Your task to perform on an android device: open app "Spotify" Image 0: 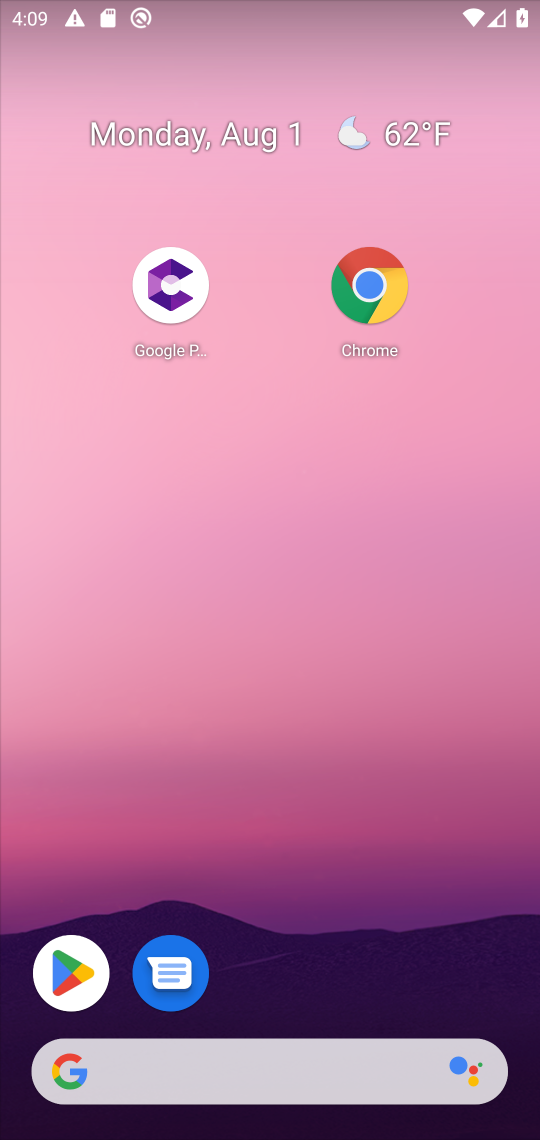
Step 0: drag from (266, 602) to (516, 705)
Your task to perform on an android device: open app "Spotify" Image 1: 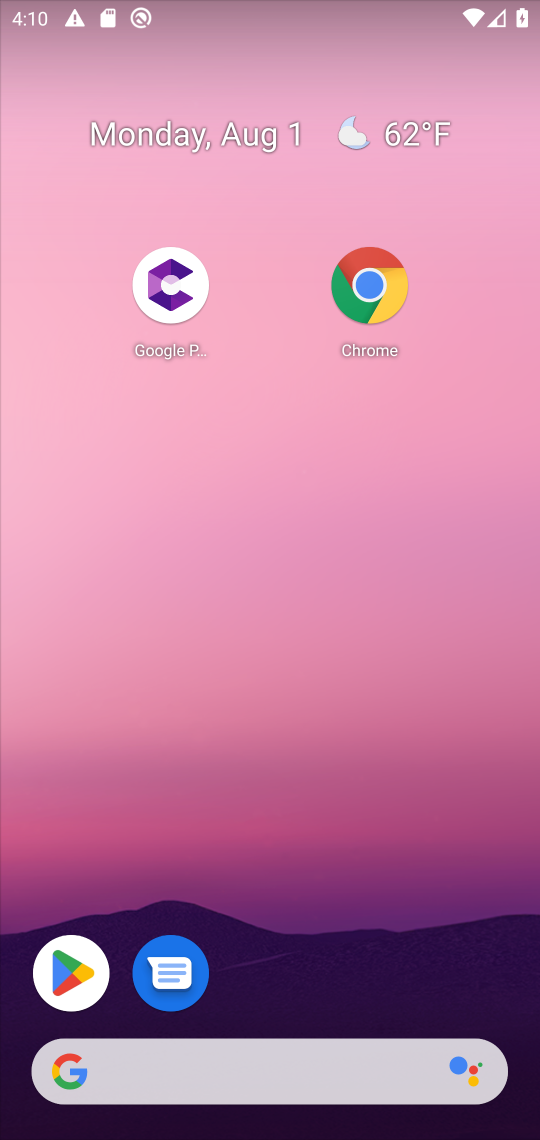
Step 1: drag from (295, 941) to (174, 431)
Your task to perform on an android device: open app "Spotify" Image 2: 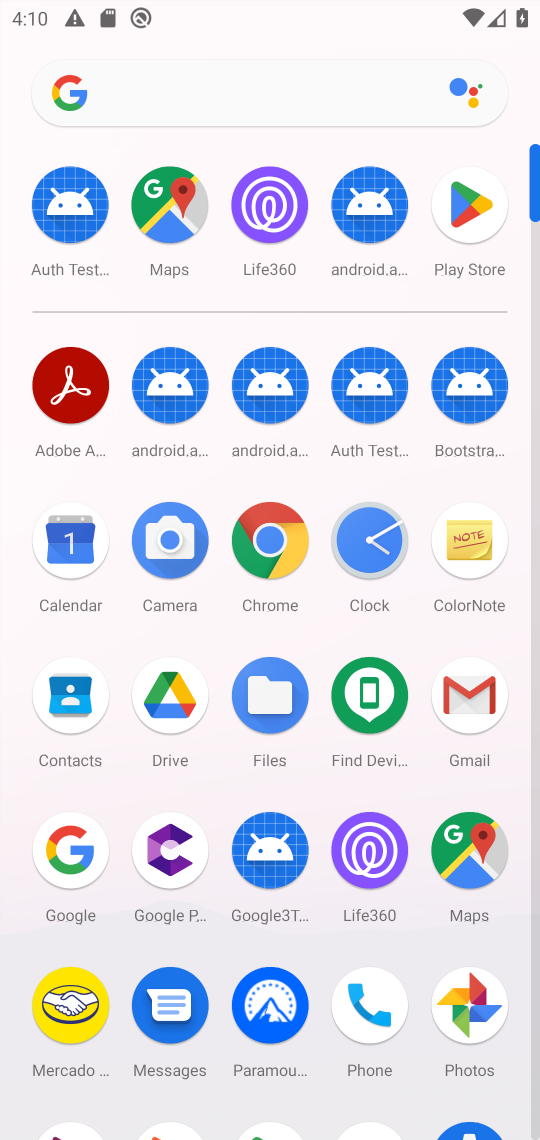
Step 2: click (265, 266)
Your task to perform on an android device: open app "Spotify" Image 3: 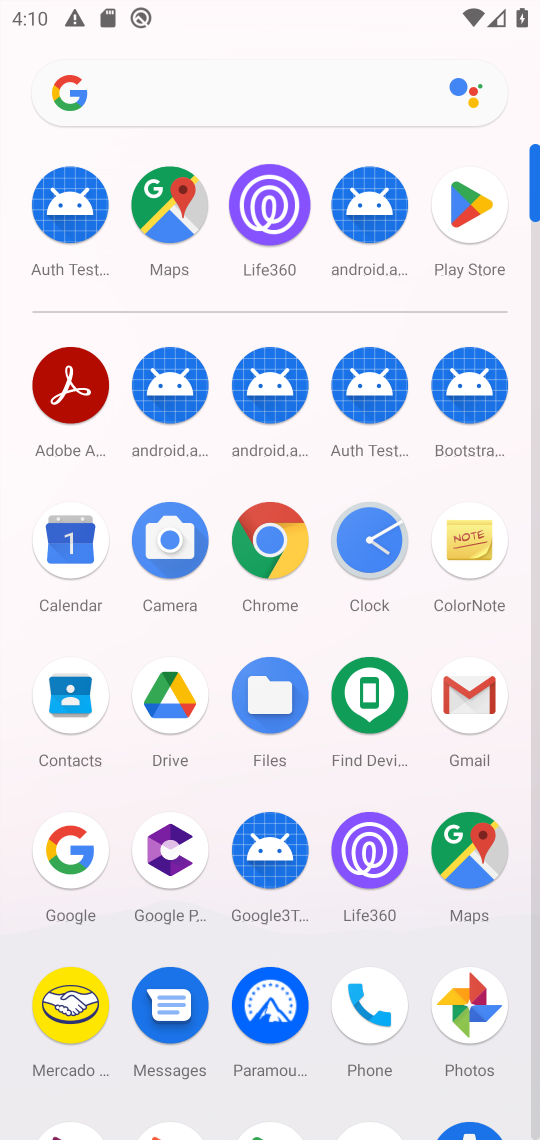
Step 3: click (189, 201)
Your task to perform on an android device: open app "Spotify" Image 4: 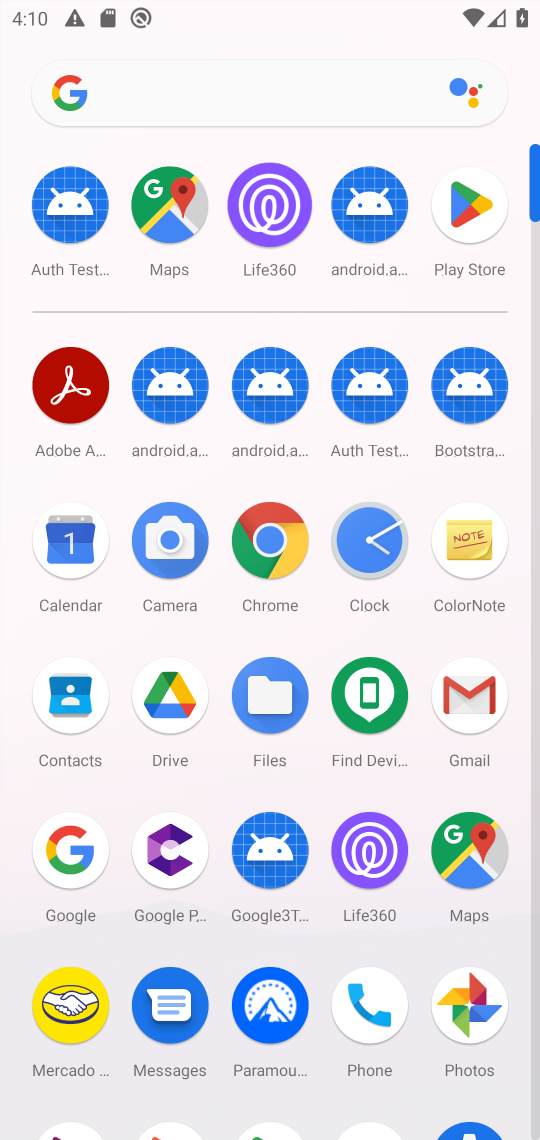
Step 4: click (275, 328)
Your task to perform on an android device: open app "Spotify" Image 5: 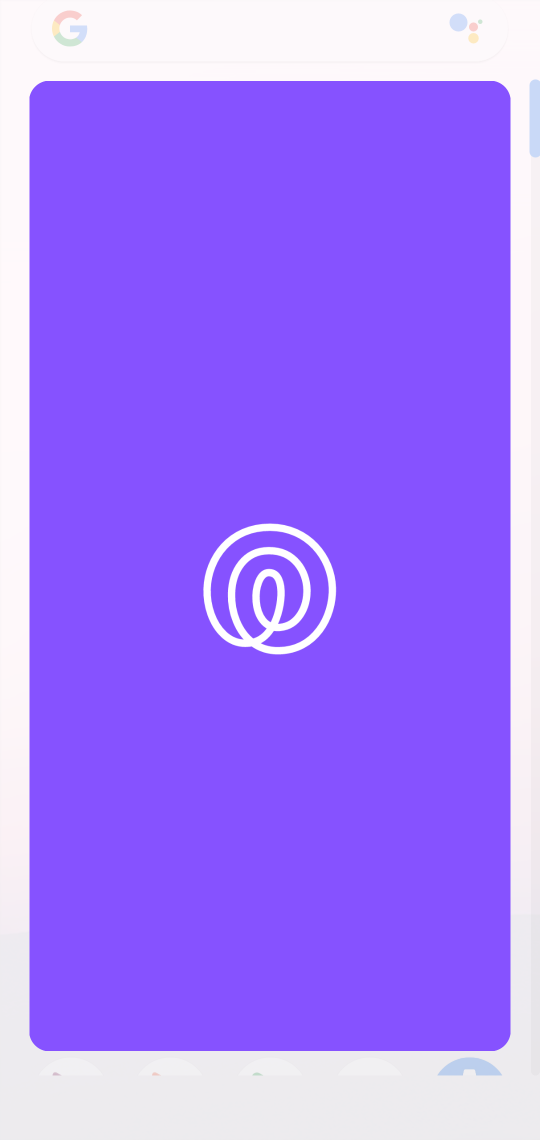
Step 5: click (249, 305)
Your task to perform on an android device: open app "Spotify" Image 6: 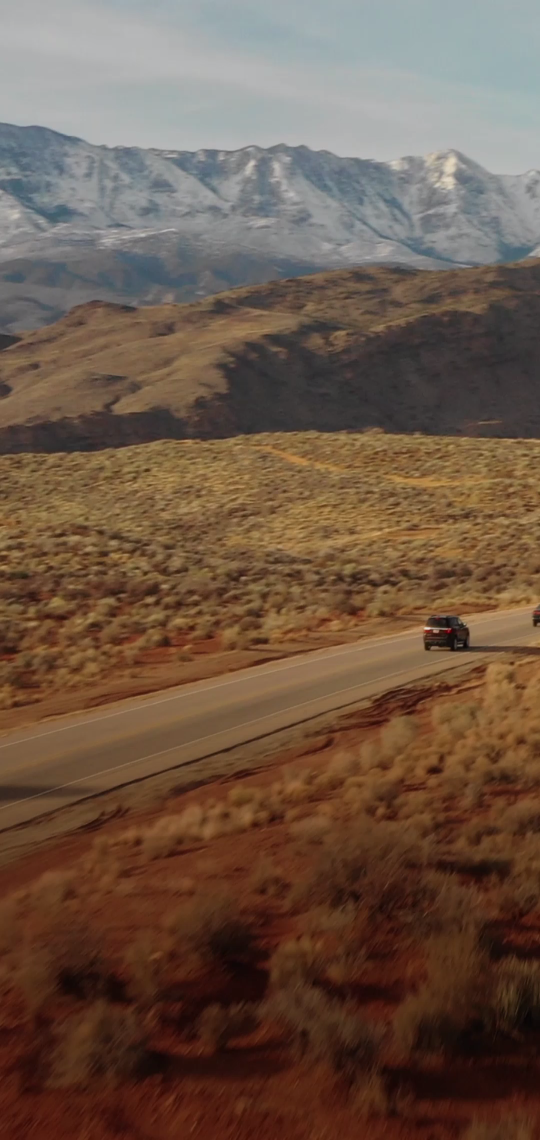
Step 6: press back button
Your task to perform on an android device: open app "Spotify" Image 7: 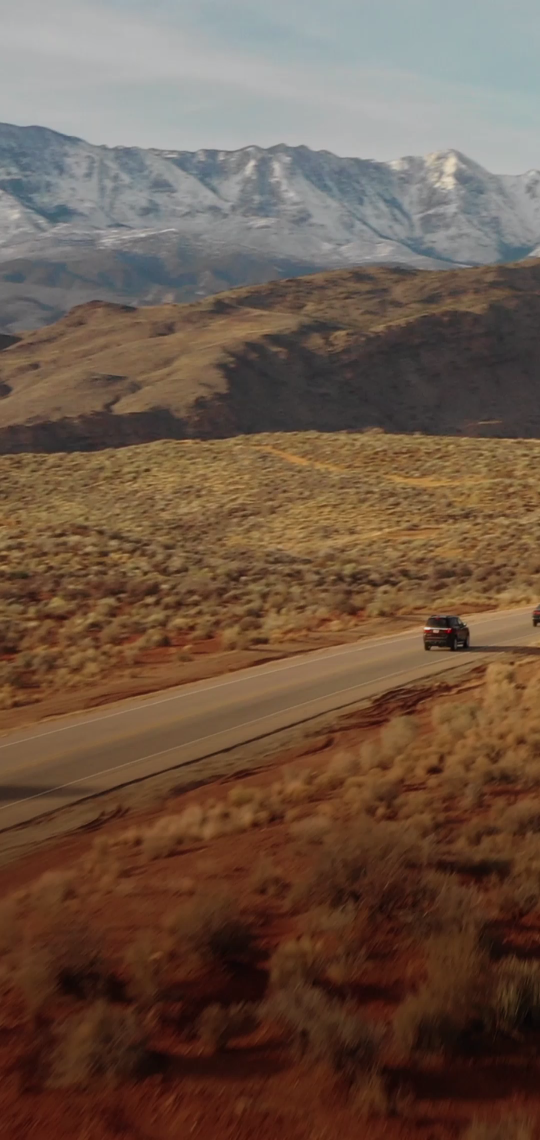
Step 7: click (338, 264)
Your task to perform on an android device: open app "Spotify" Image 8: 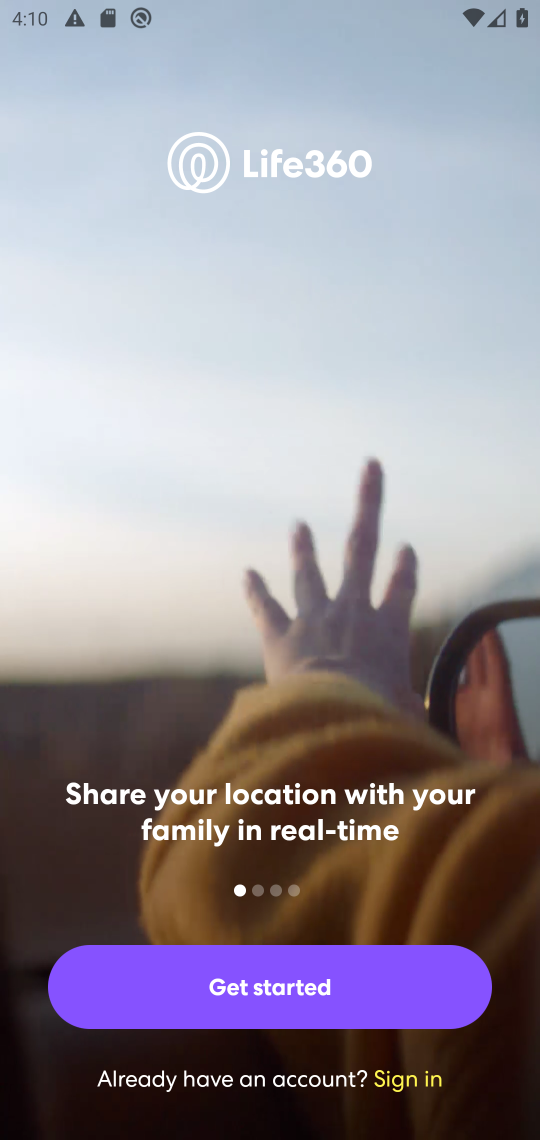
Step 8: press back button
Your task to perform on an android device: open app "Spotify" Image 9: 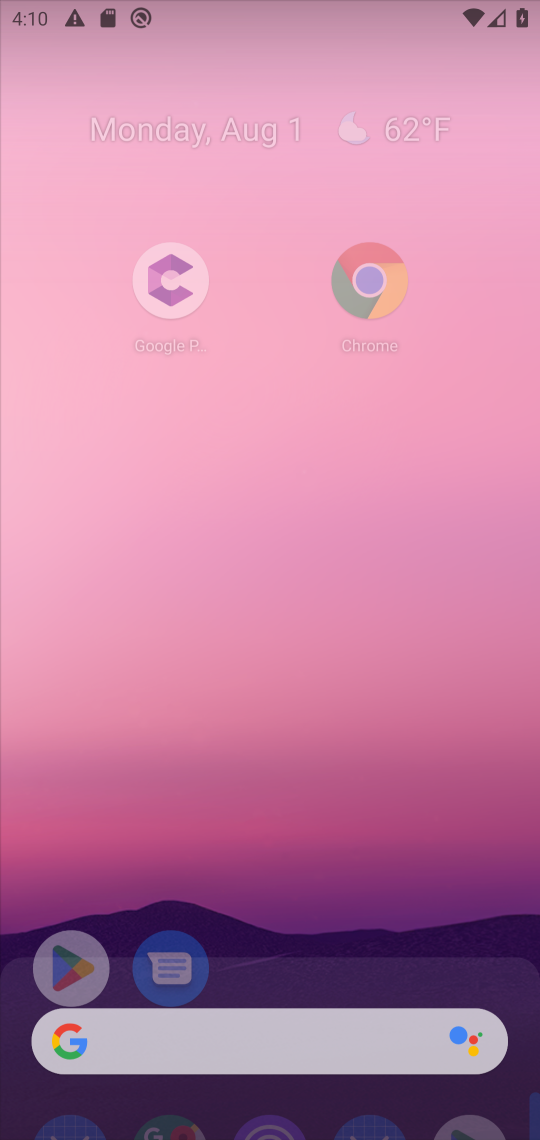
Step 9: press back button
Your task to perform on an android device: open app "Spotify" Image 10: 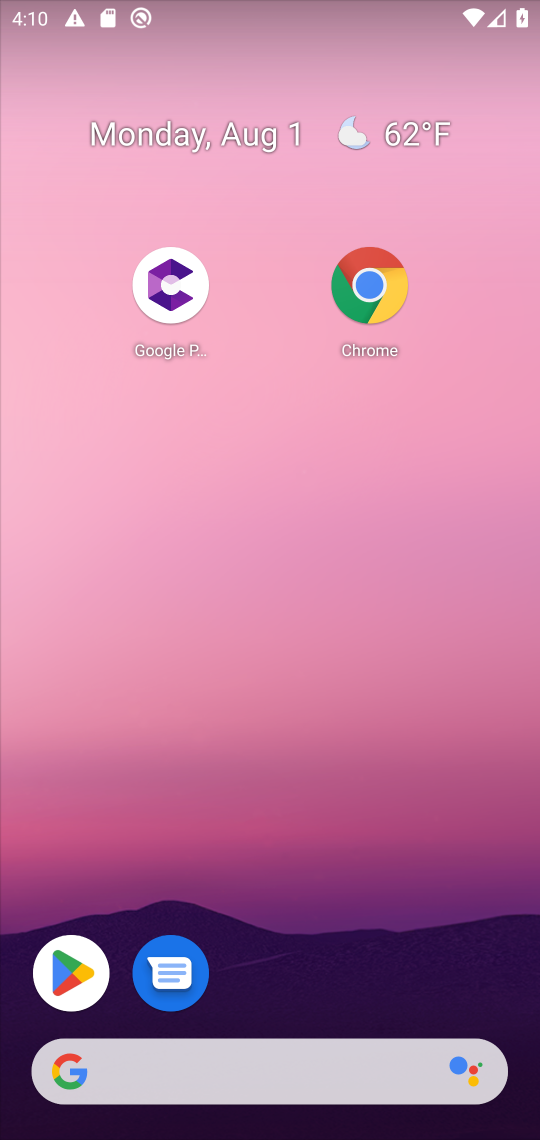
Step 10: click (320, 236)
Your task to perform on an android device: open app "Spotify" Image 11: 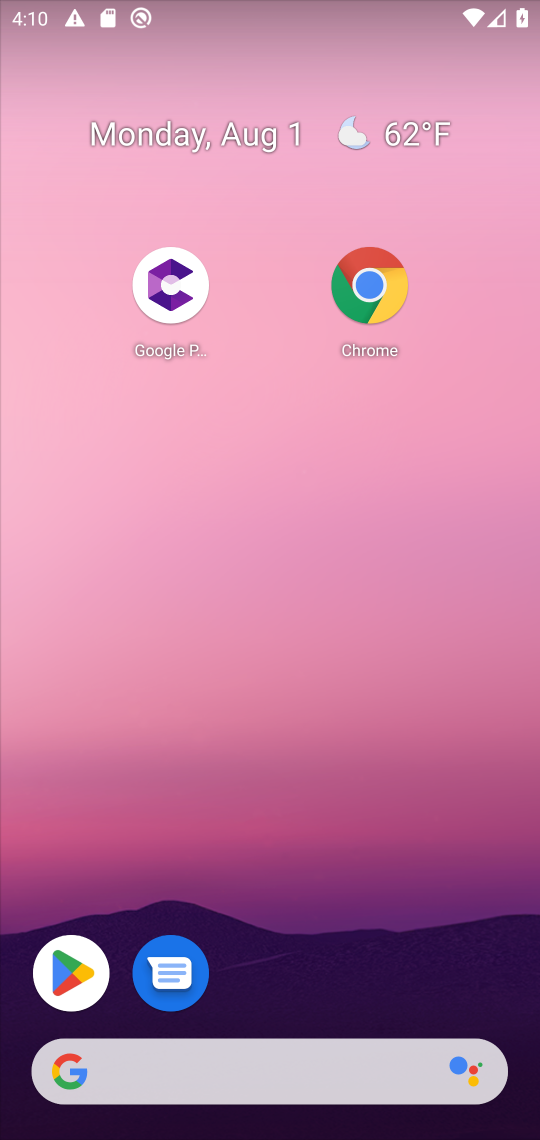
Step 11: drag from (195, 684) to (321, 258)
Your task to perform on an android device: open app "Spotify" Image 12: 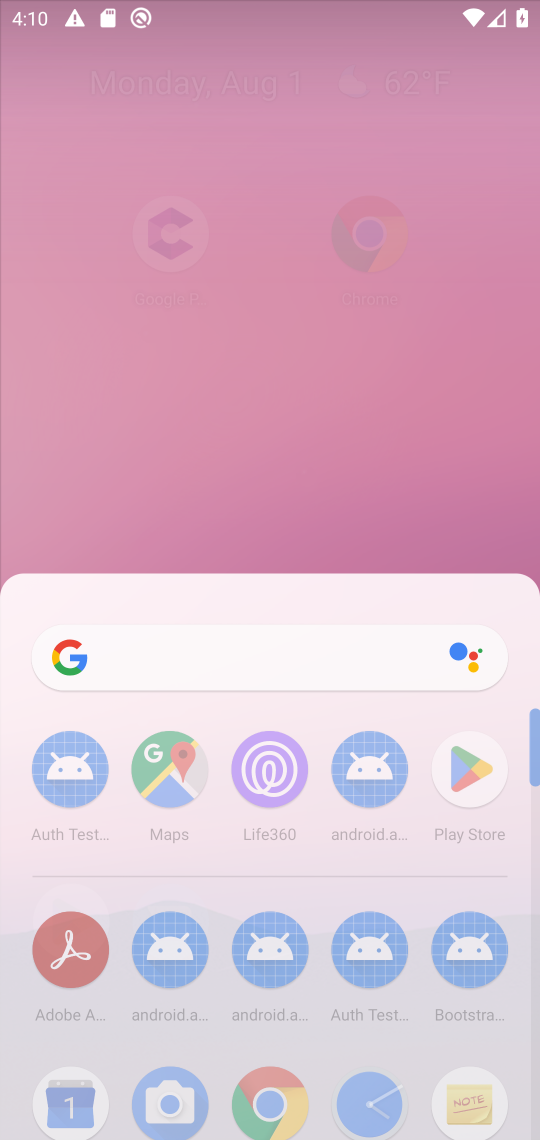
Step 12: drag from (297, 527) to (214, 157)
Your task to perform on an android device: open app "Spotify" Image 13: 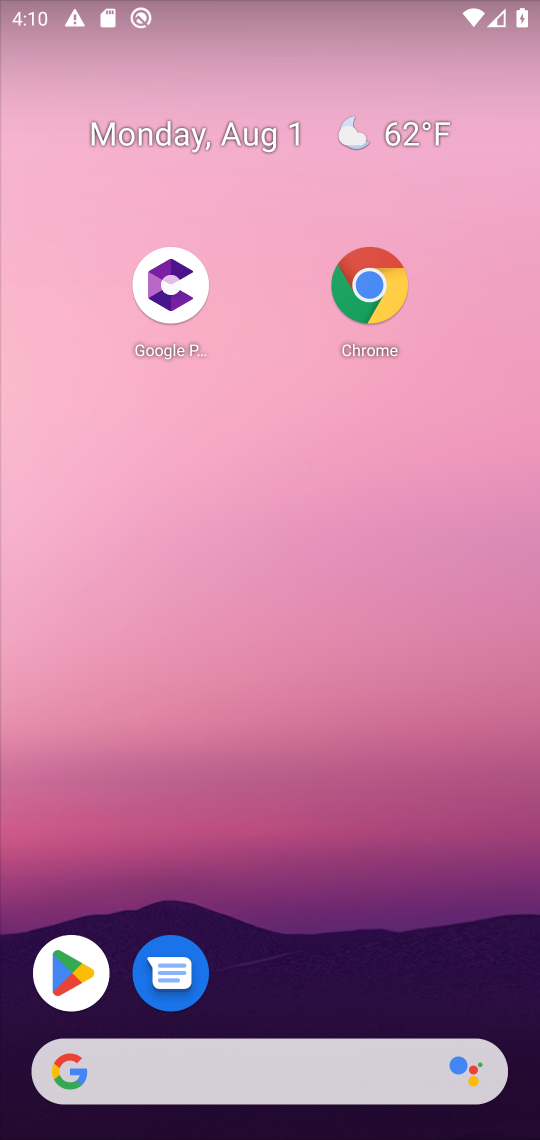
Step 13: drag from (245, 958) to (228, 404)
Your task to perform on an android device: open app "Spotify" Image 14: 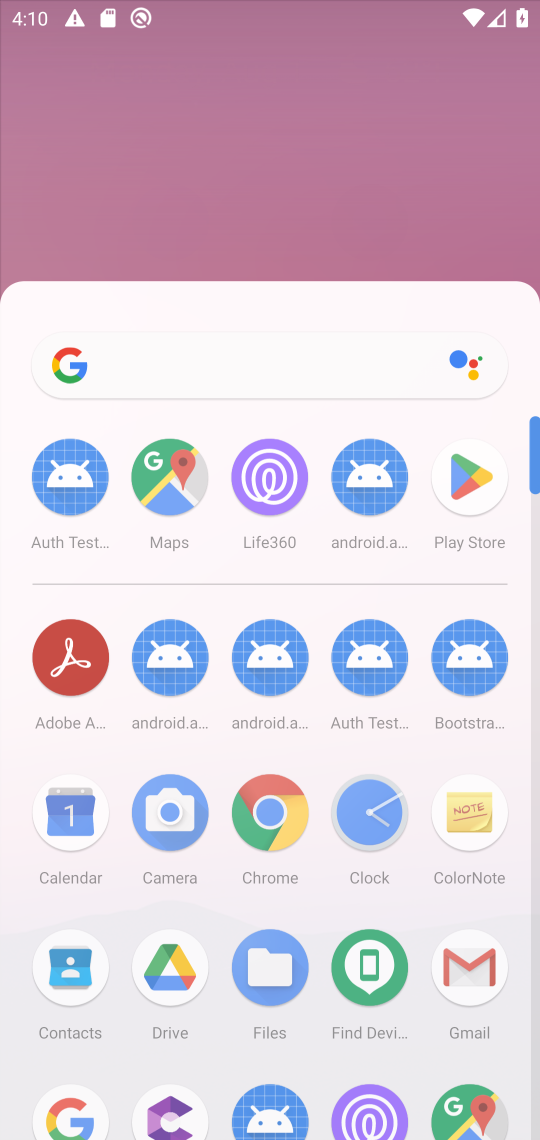
Step 14: drag from (301, 950) to (125, 236)
Your task to perform on an android device: open app "Spotify" Image 15: 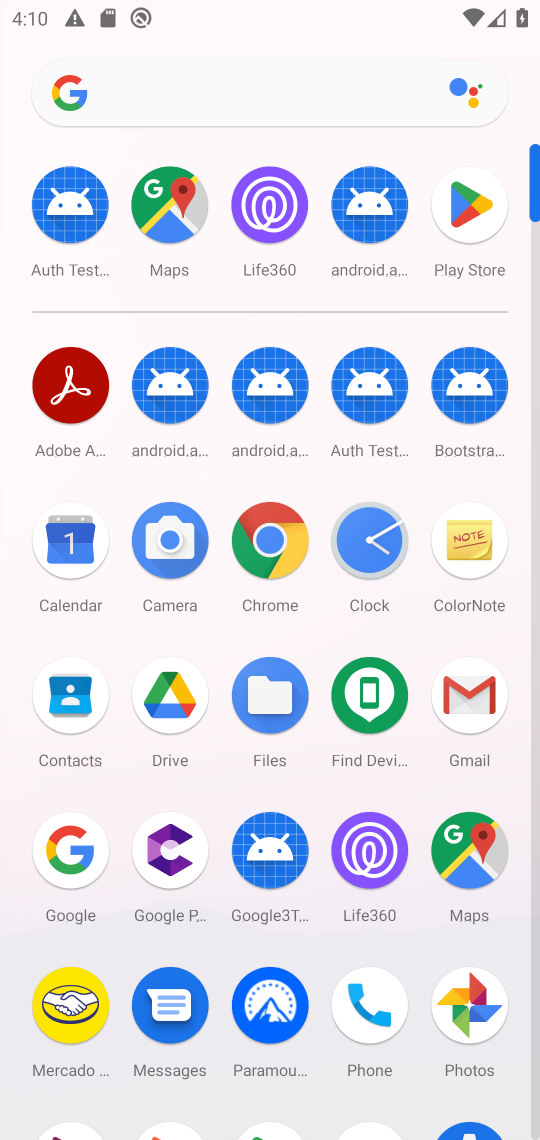
Step 15: drag from (309, 930) to (170, 283)
Your task to perform on an android device: open app "Spotify" Image 16: 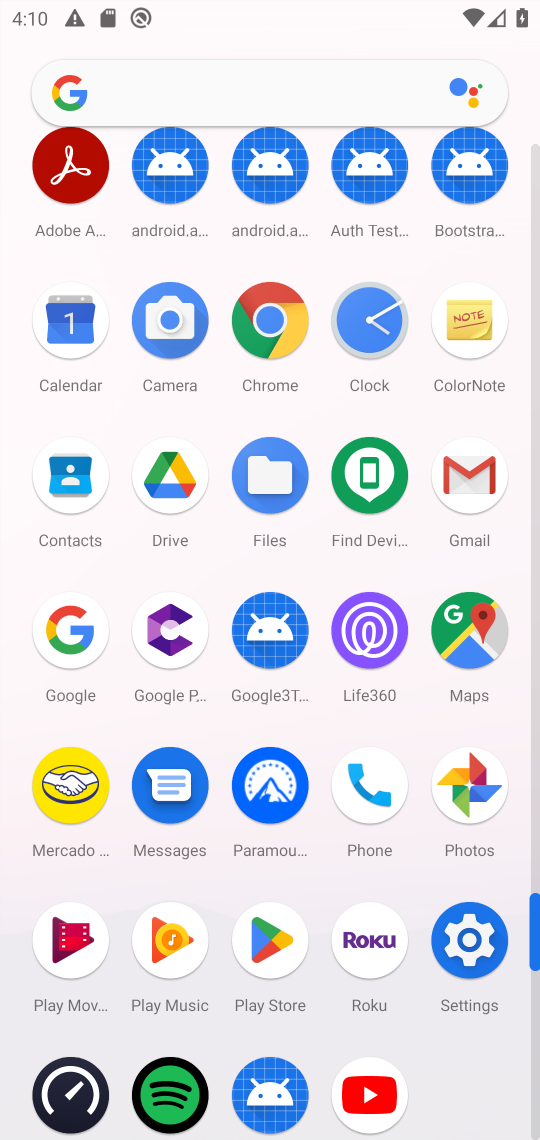
Step 16: click (250, 956)
Your task to perform on an android device: open app "Spotify" Image 17: 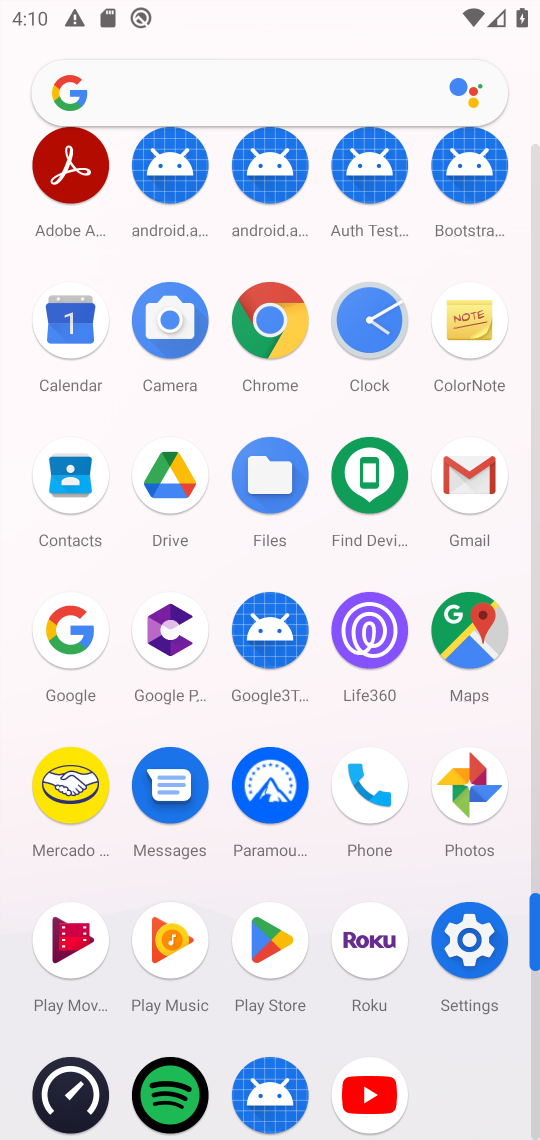
Step 17: click (277, 949)
Your task to perform on an android device: open app "Spotify" Image 18: 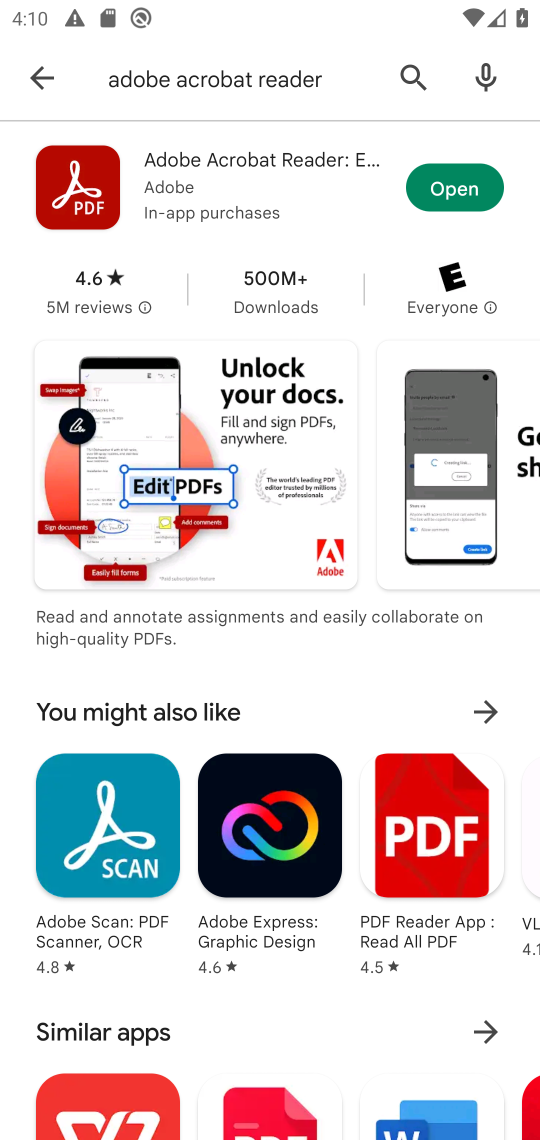
Step 18: click (36, 62)
Your task to perform on an android device: open app "Spotify" Image 19: 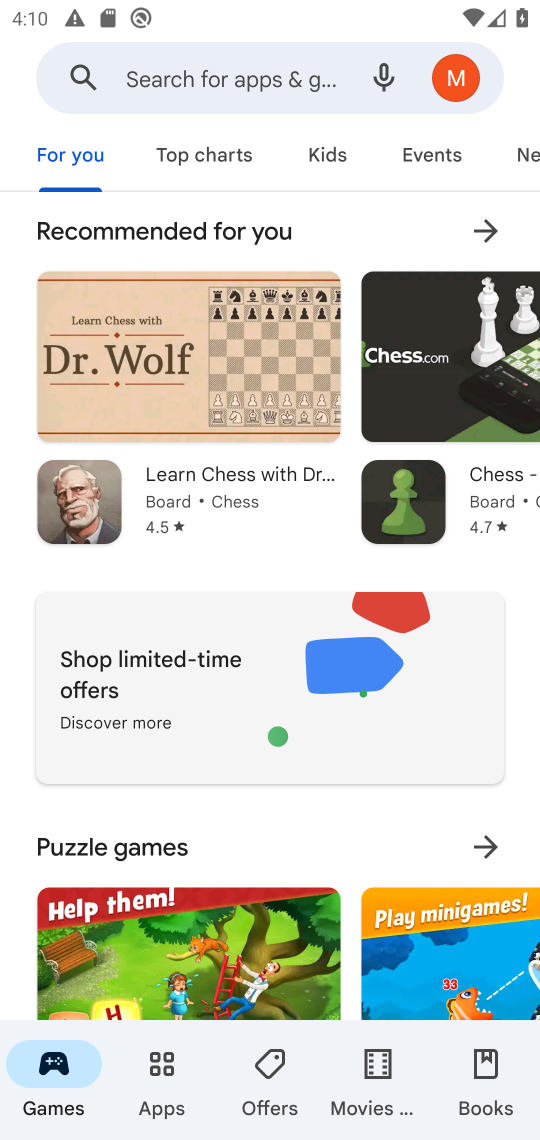
Step 19: click (148, 67)
Your task to perform on an android device: open app "Spotify" Image 20: 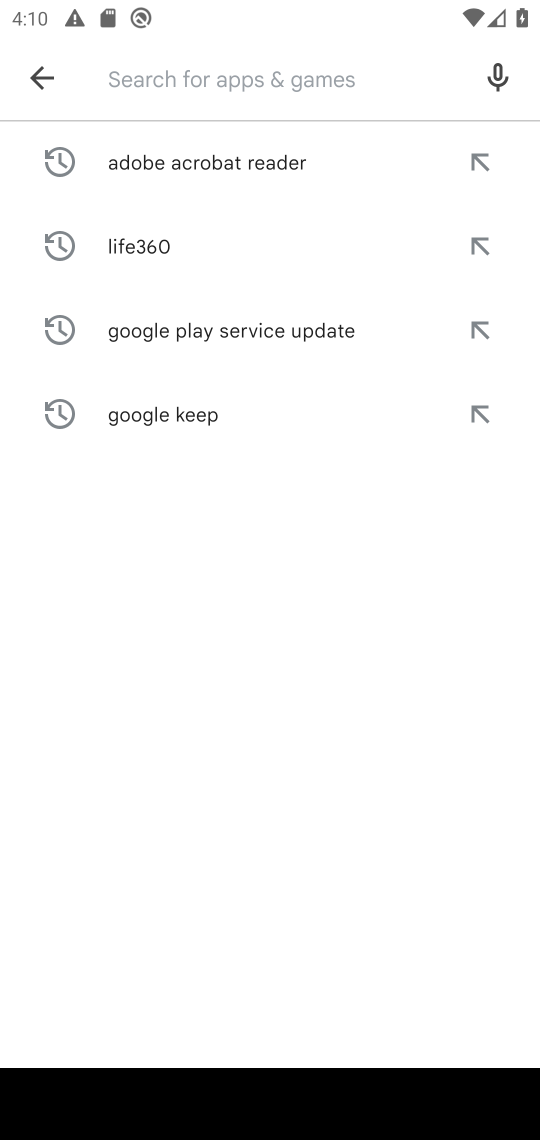
Step 20: type "spotify"
Your task to perform on an android device: open app "Spotify" Image 21: 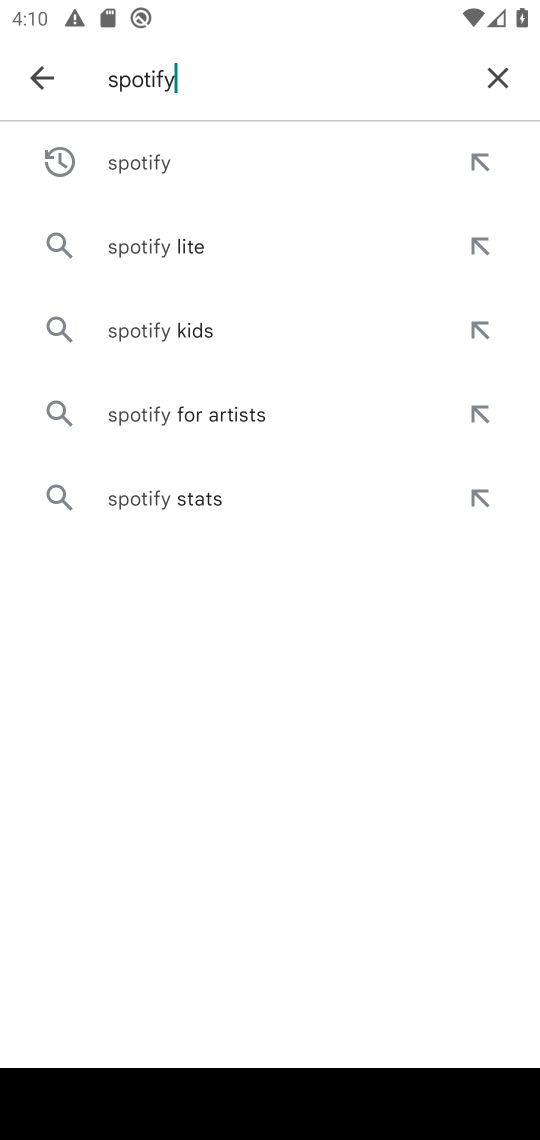
Step 21: click (161, 164)
Your task to perform on an android device: open app "Spotify" Image 22: 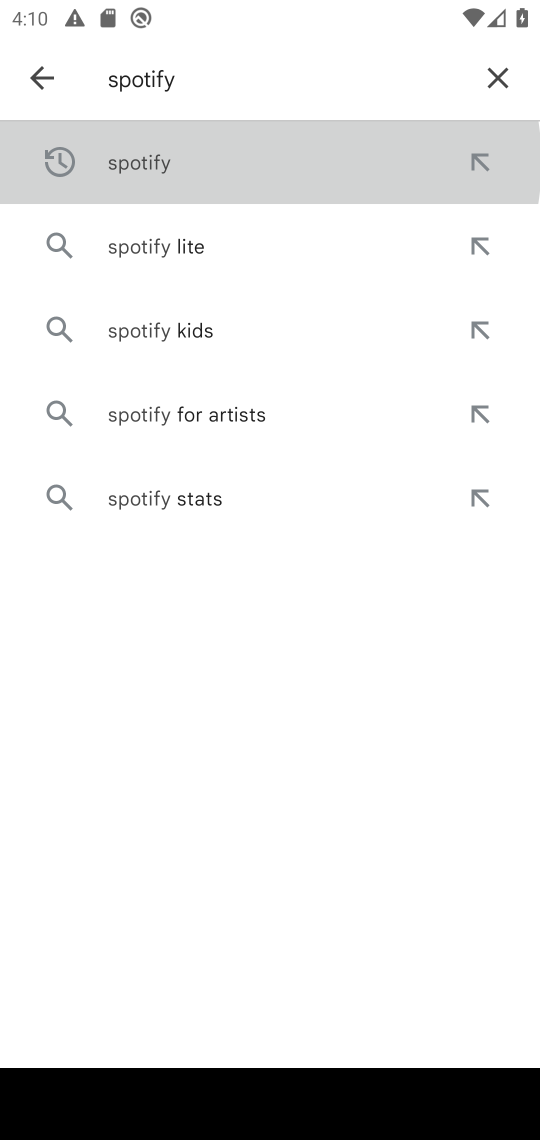
Step 22: click (131, 166)
Your task to perform on an android device: open app "Spotify" Image 23: 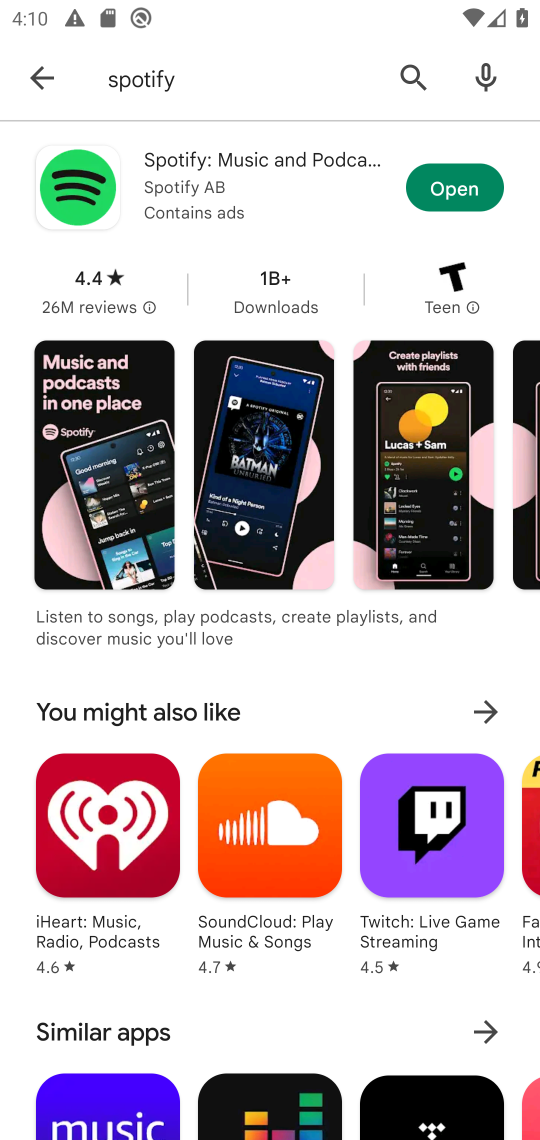
Step 23: click (432, 190)
Your task to perform on an android device: open app "Spotify" Image 24: 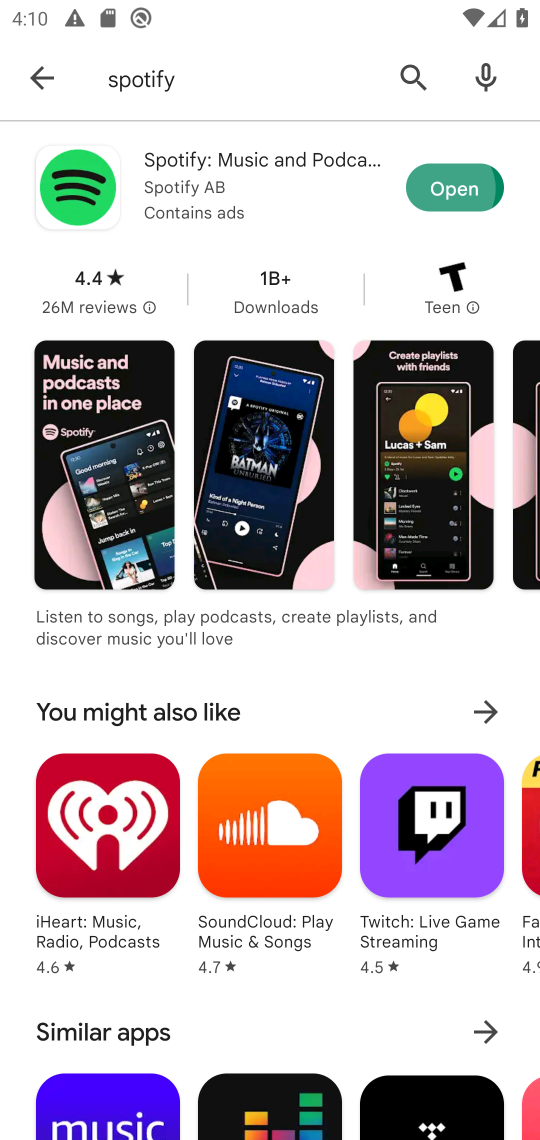
Step 24: click (428, 178)
Your task to perform on an android device: open app "Spotify" Image 25: 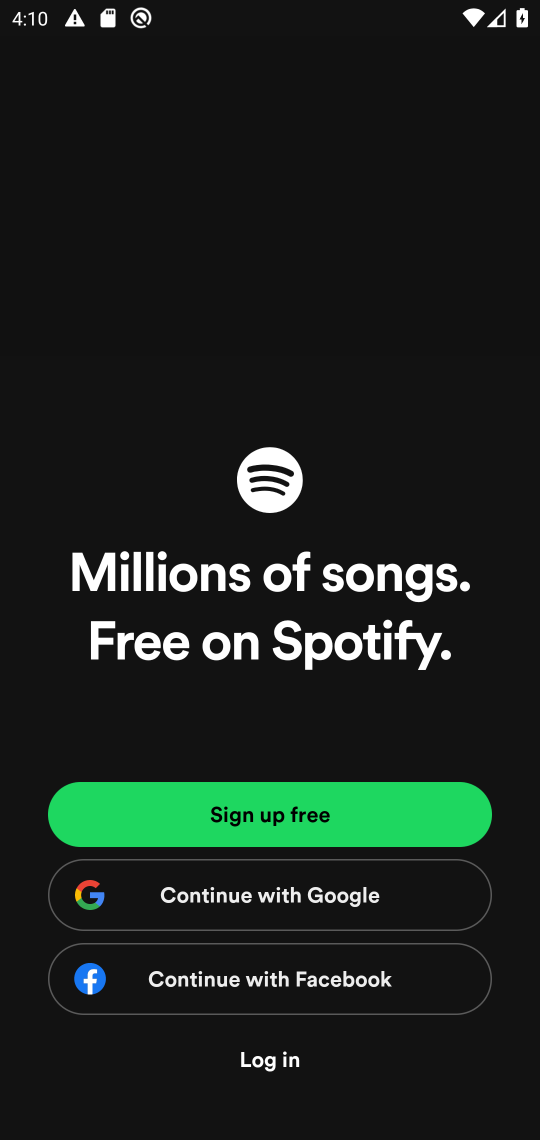
Step 25: task complete